Your task to perform on an android device: turn on showing notifications on the lock screen Image 0: 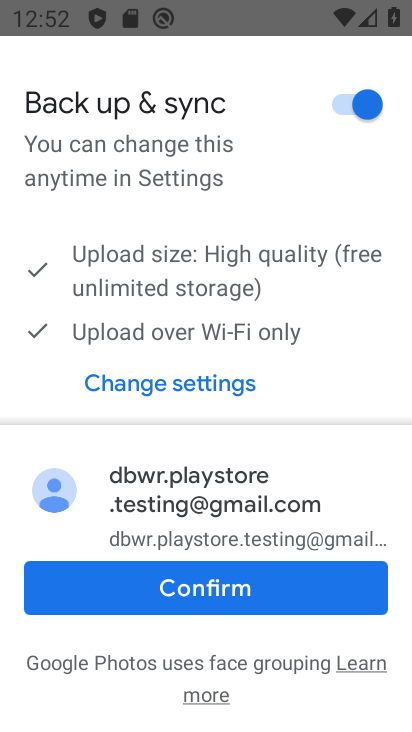
Step 0: press home button
Your task to perform on an android device: turn on showing notifications on the lock screen Image 1: 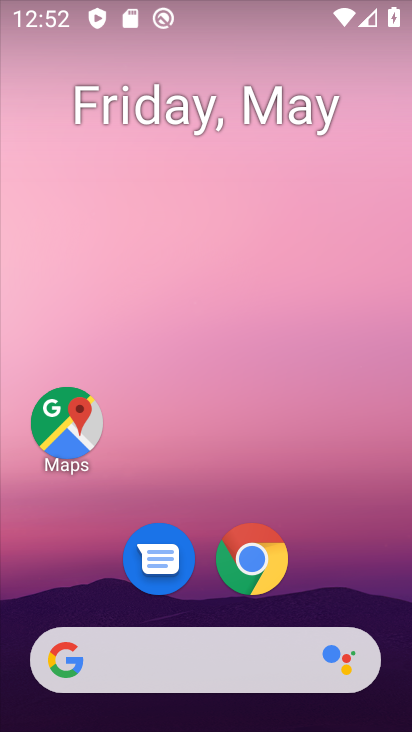
Step 1: drag from (355, 580) to (303, 161)
Your task to perform on an android device: turn on showing notifications on the lock screen Image 2: 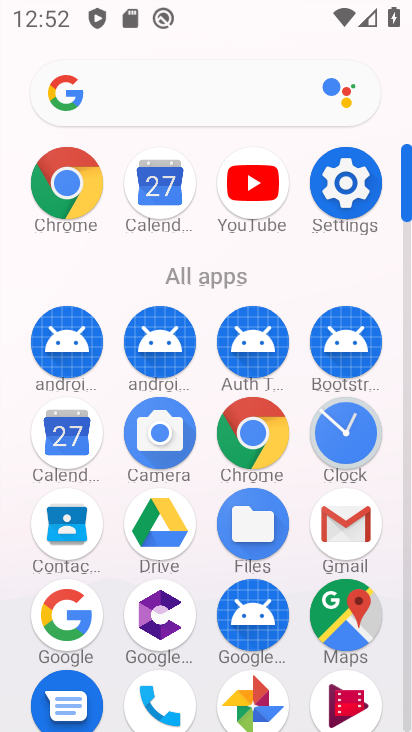
Step 2: click (335, 189)
Your task to perform on an android device: turn on showing notifications on the lock screen Image 3: 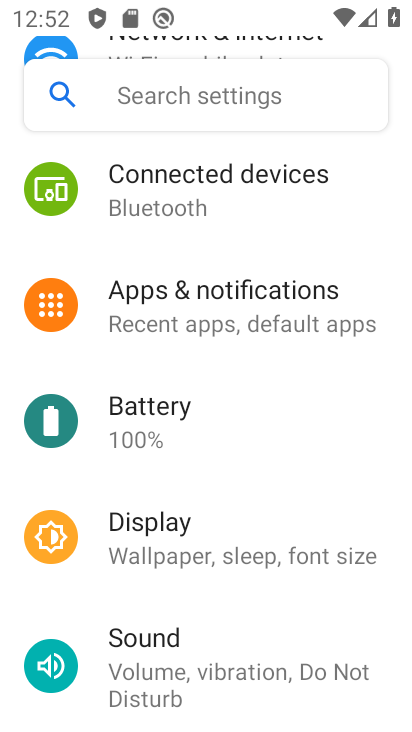
Step 3: click (304, 293)
Your task to perform on an android device: turn on showing notifications on the lock screen Image 4: 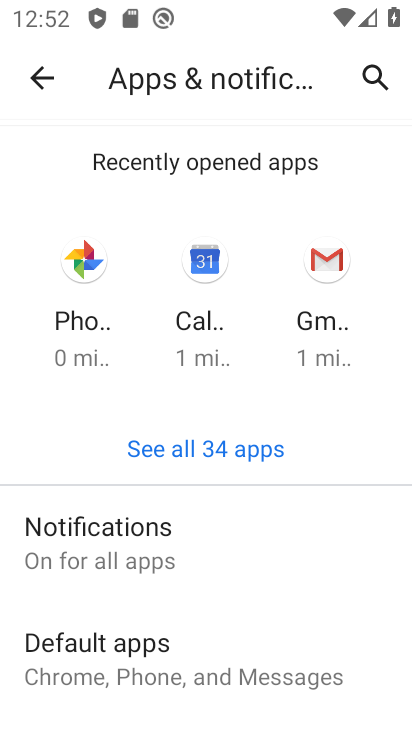
Step 4: click (161, 543)
Your task to perform on an android device: turn on showing notifications on the lock screen Image 5: 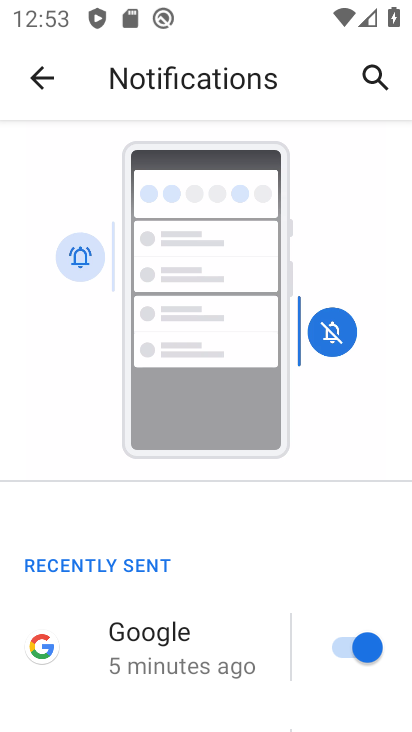
Step 5: drag from (189, 623) to (192, 335)
Your task to perform on an android device: turn on showing notifications on the lock screen Image 6: 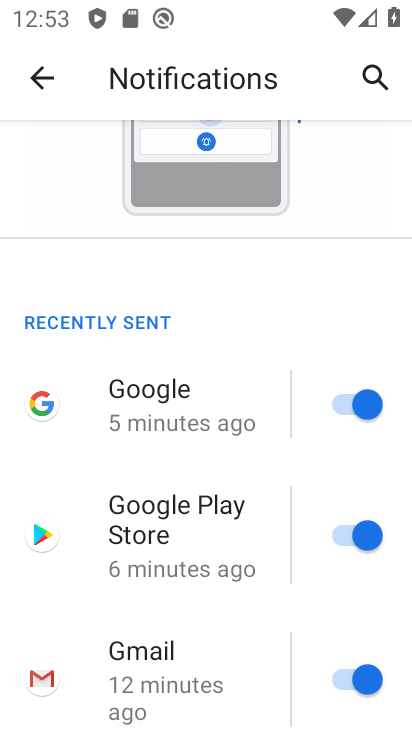
Step 6: drag from (190, 644) to (192, 355)
Your task to perform on an android device: turn on showing notifications on the lock screen Image 7: 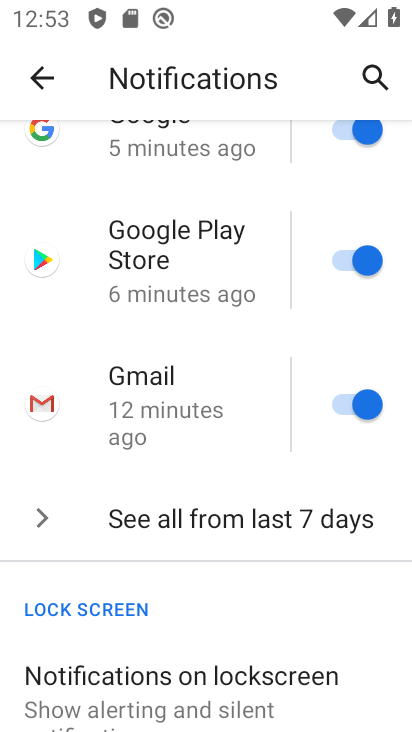
Step 7: click (216, 688)
Your task to perform on an android device: turn on showing notifications on the lock screen Image 8: 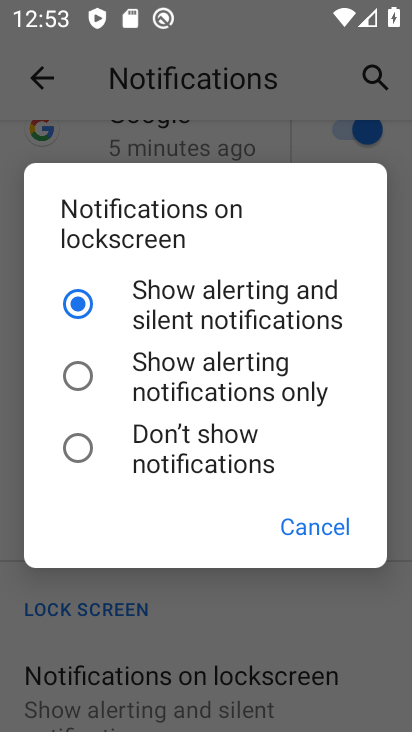
Step 8: task complete